Your task to perform on an android device: What's the latest technology news? Image 0: 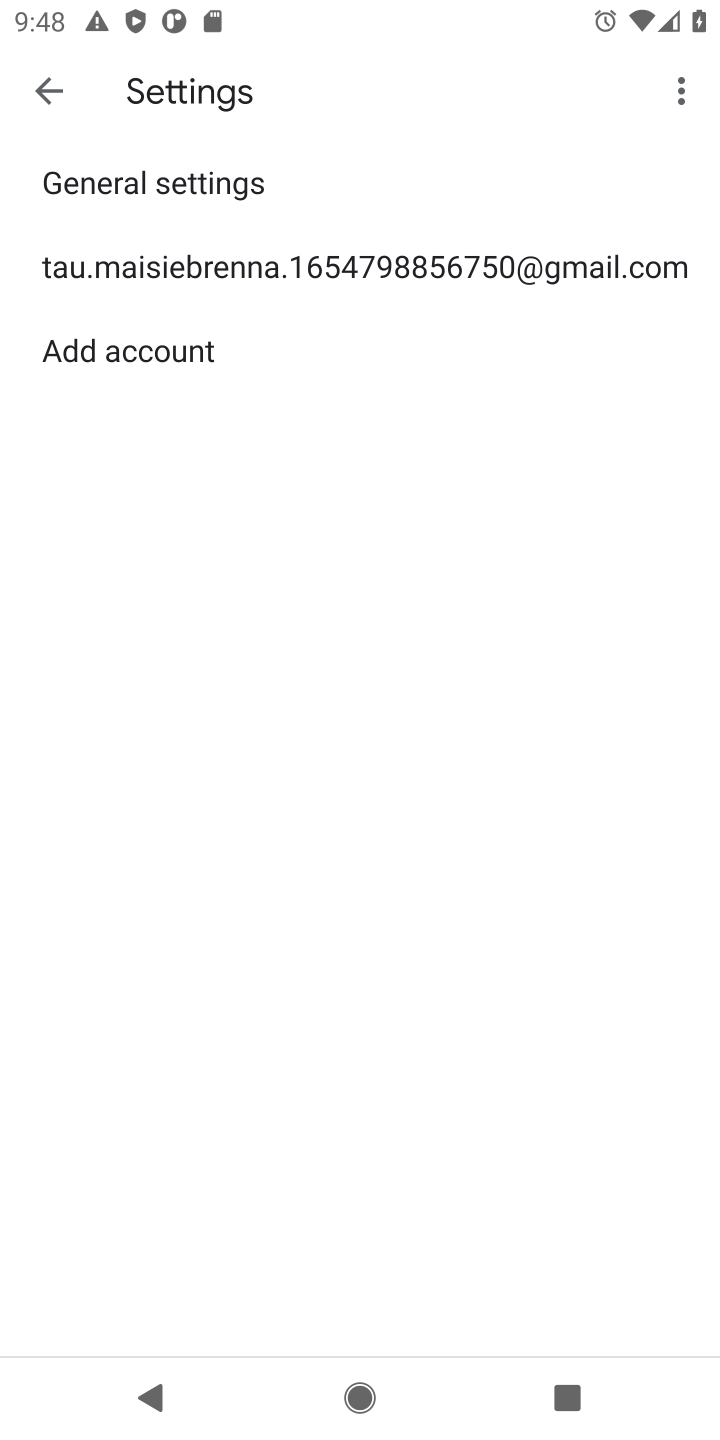
Step 0: press home button
Your task to perform on an android device: What's the latest technology news? Image 1: 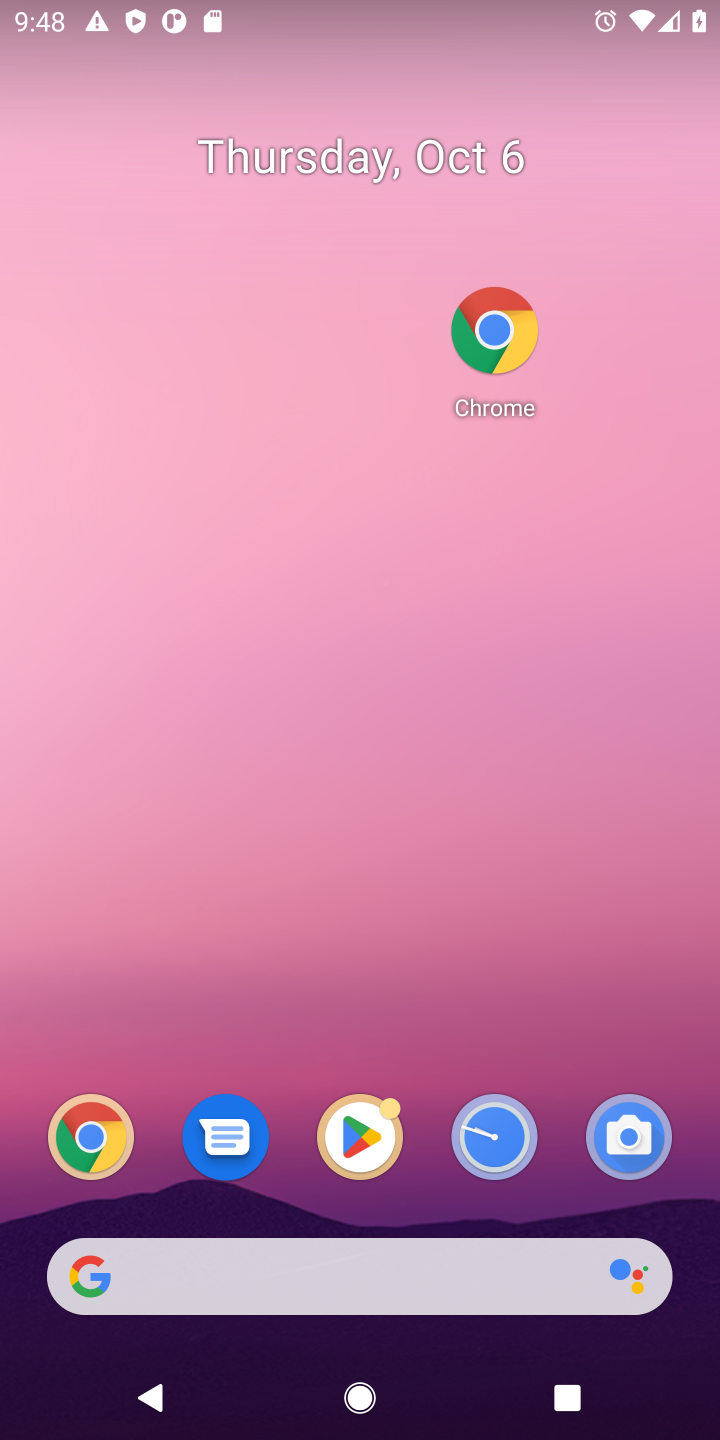
Step 1: click (245, 1262)
Your task to perform on an android device: What's the latest technology news? Image 2: 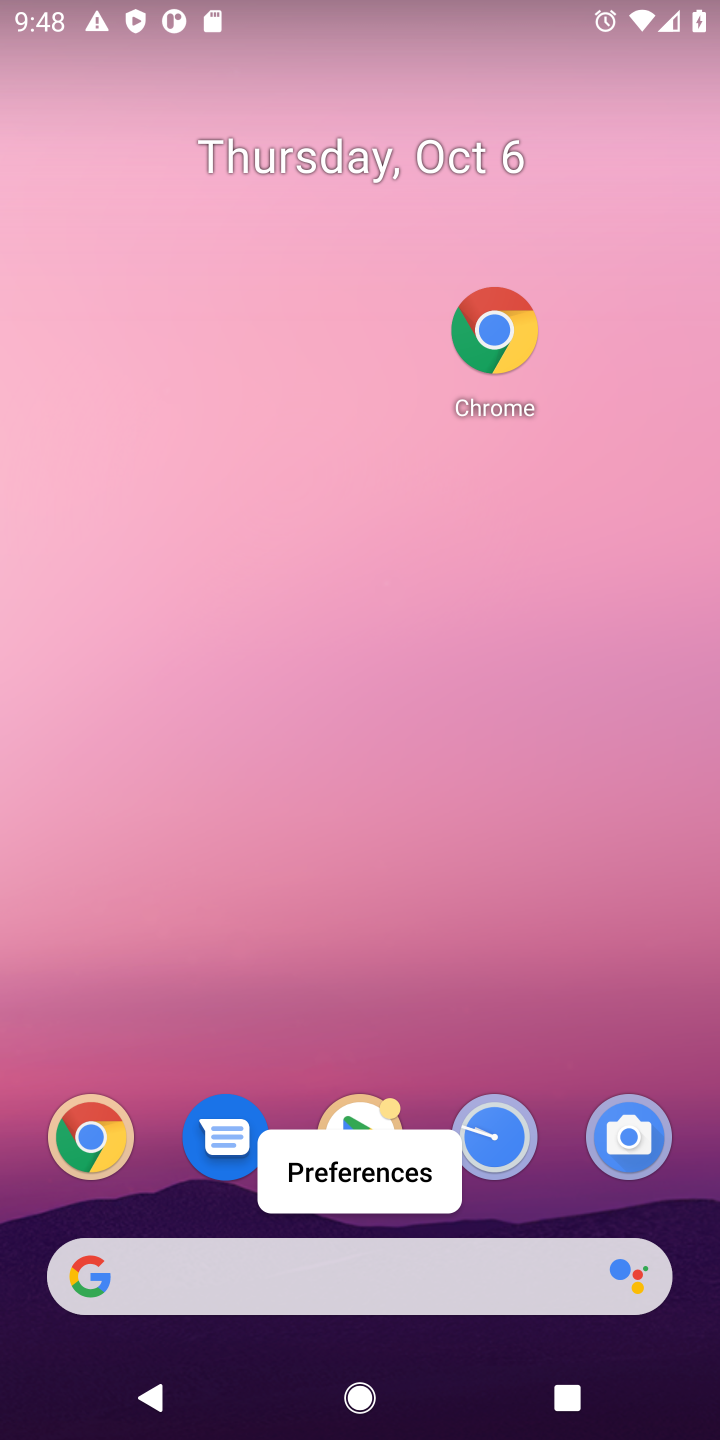
Step 2: click (173, 1276)
Your task to perform on an android device: What's the latest technology news? Image 3: 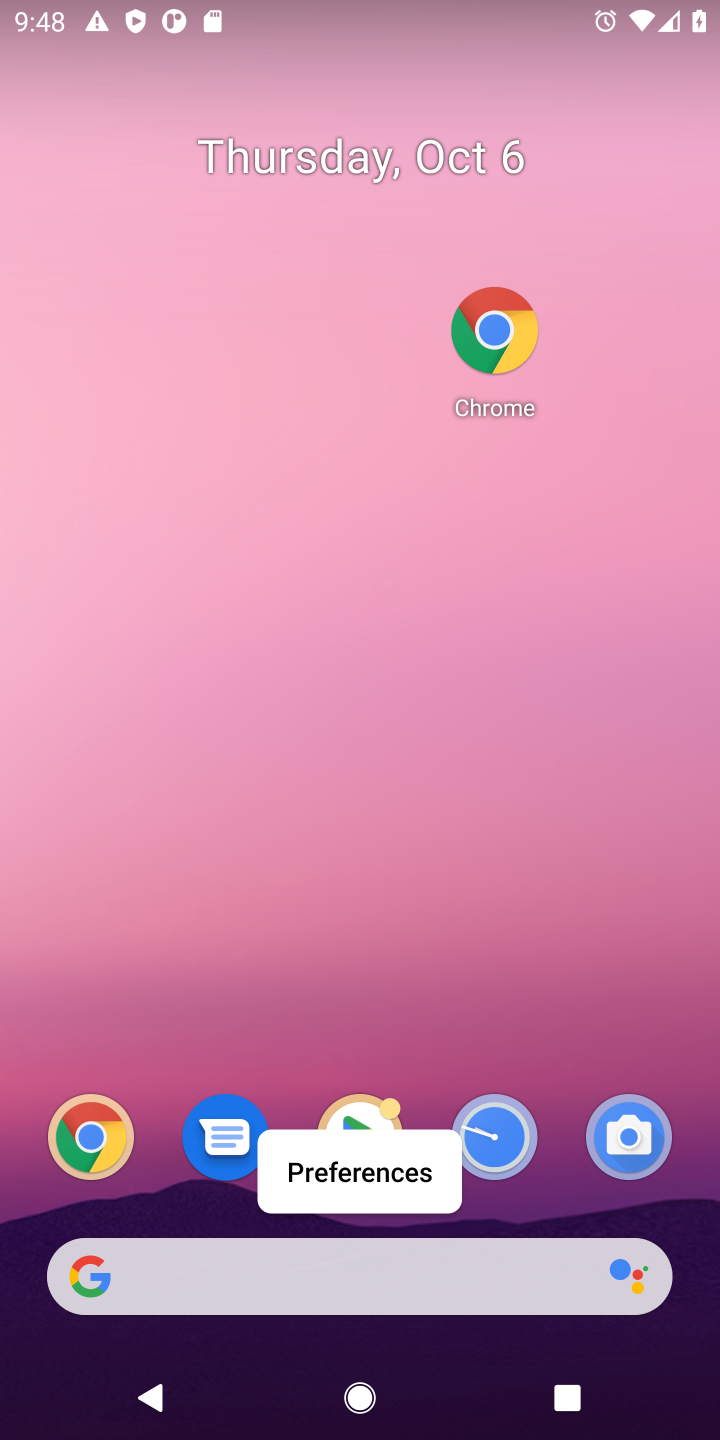
Step 3: click (232, 1271)
Your task to perform on an android device: What's the latest technology news? Image 4: 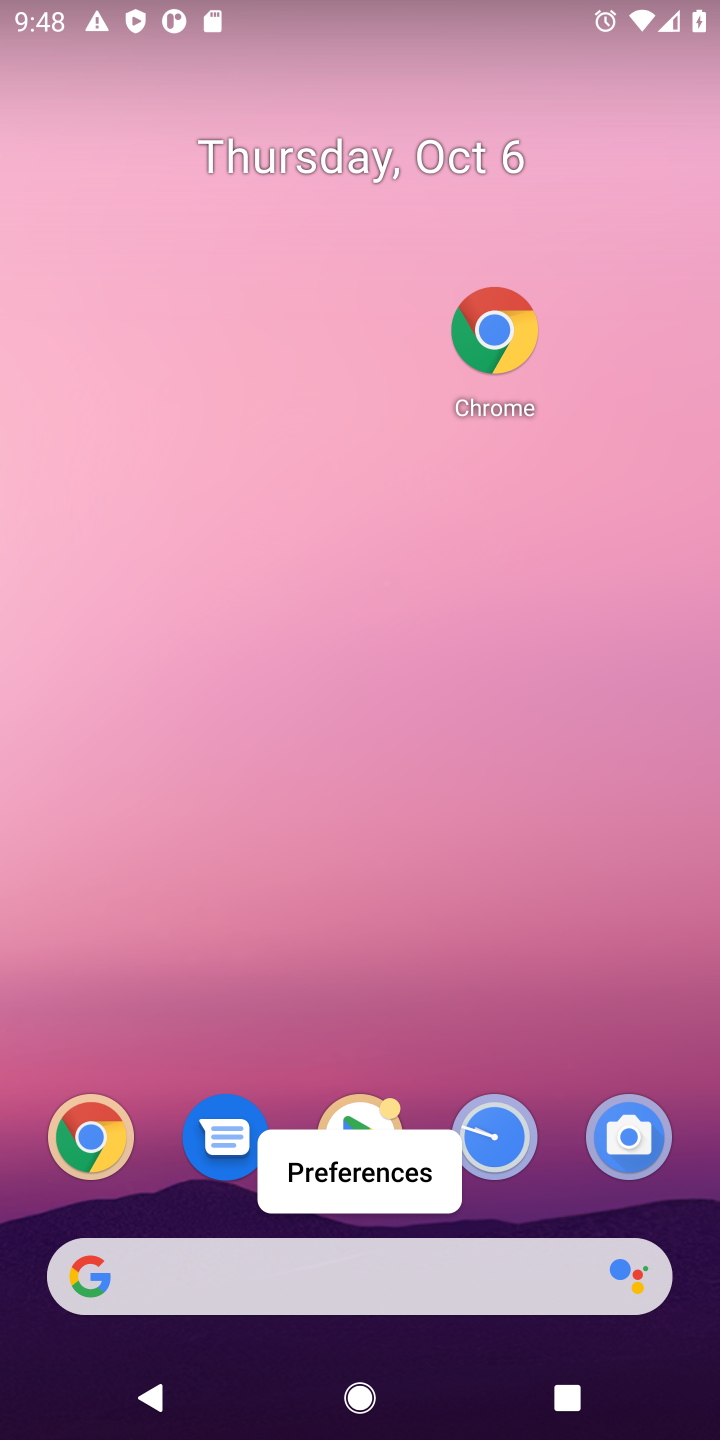
Step 4: click (145, 1283)
Your task to perform on an android device: What's the latest technology news? Image 5: 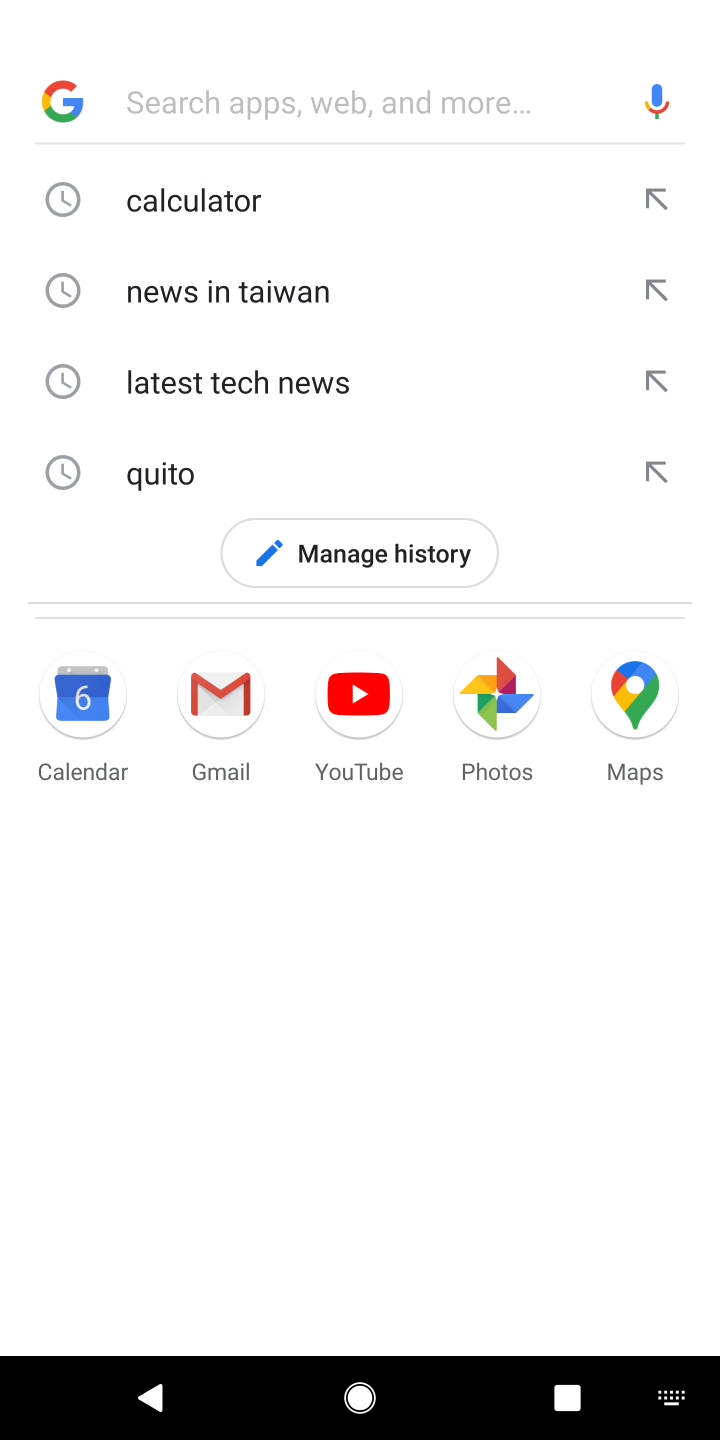
Step 5: type " latest technology news"
Your task to perform on an android device: What's the latest technology news? Image 6: 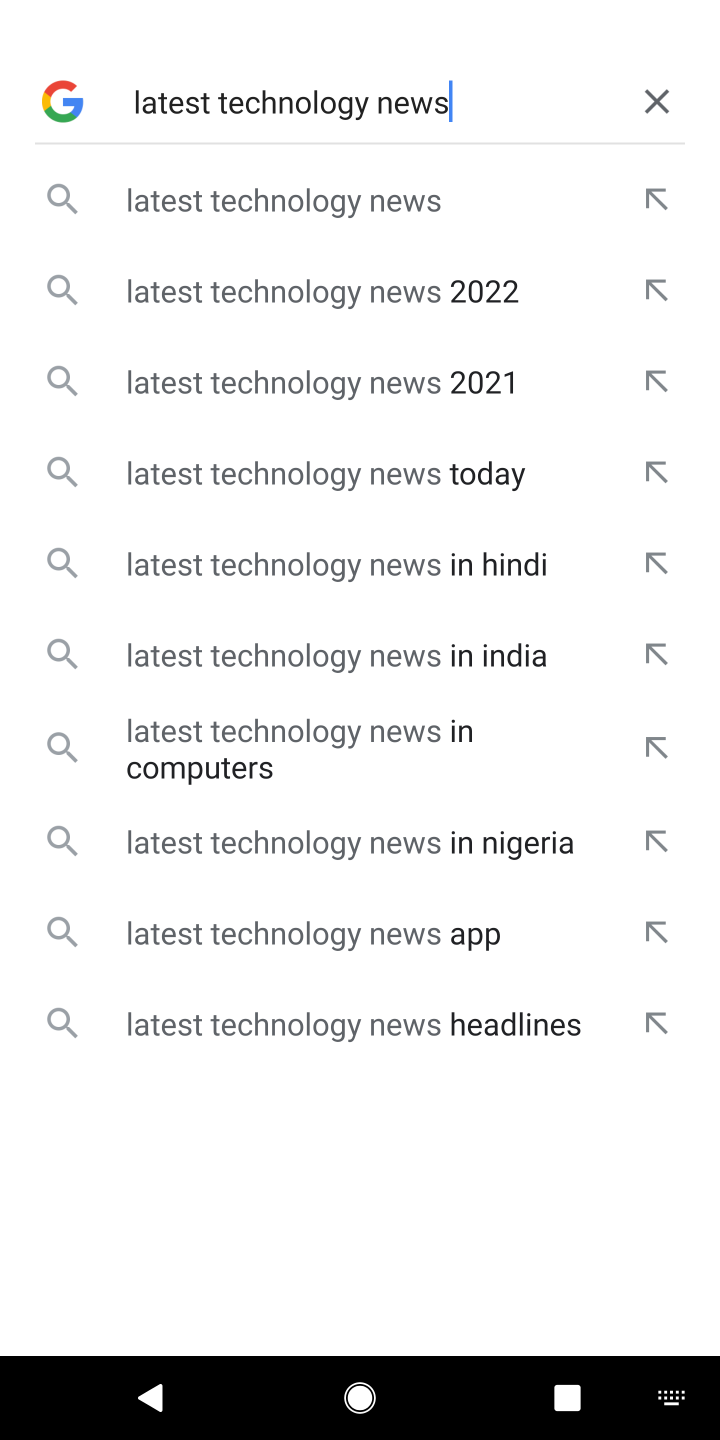
Step 6: click (273, 209)
Your task to perform on an android device: What's the latest technology news? Image 7: 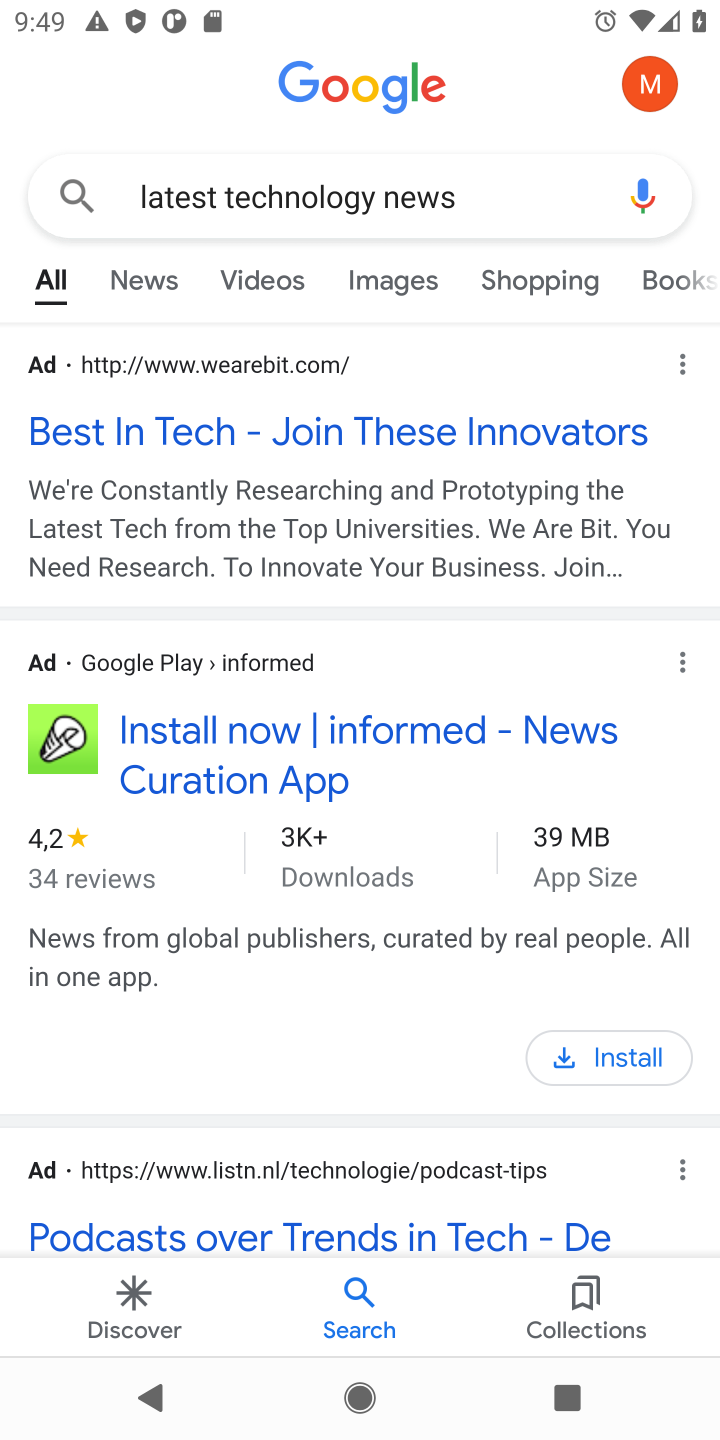
Step 7: click (153, 451)
Your task to perform on an android device: What's the latest technology news? Image 8: 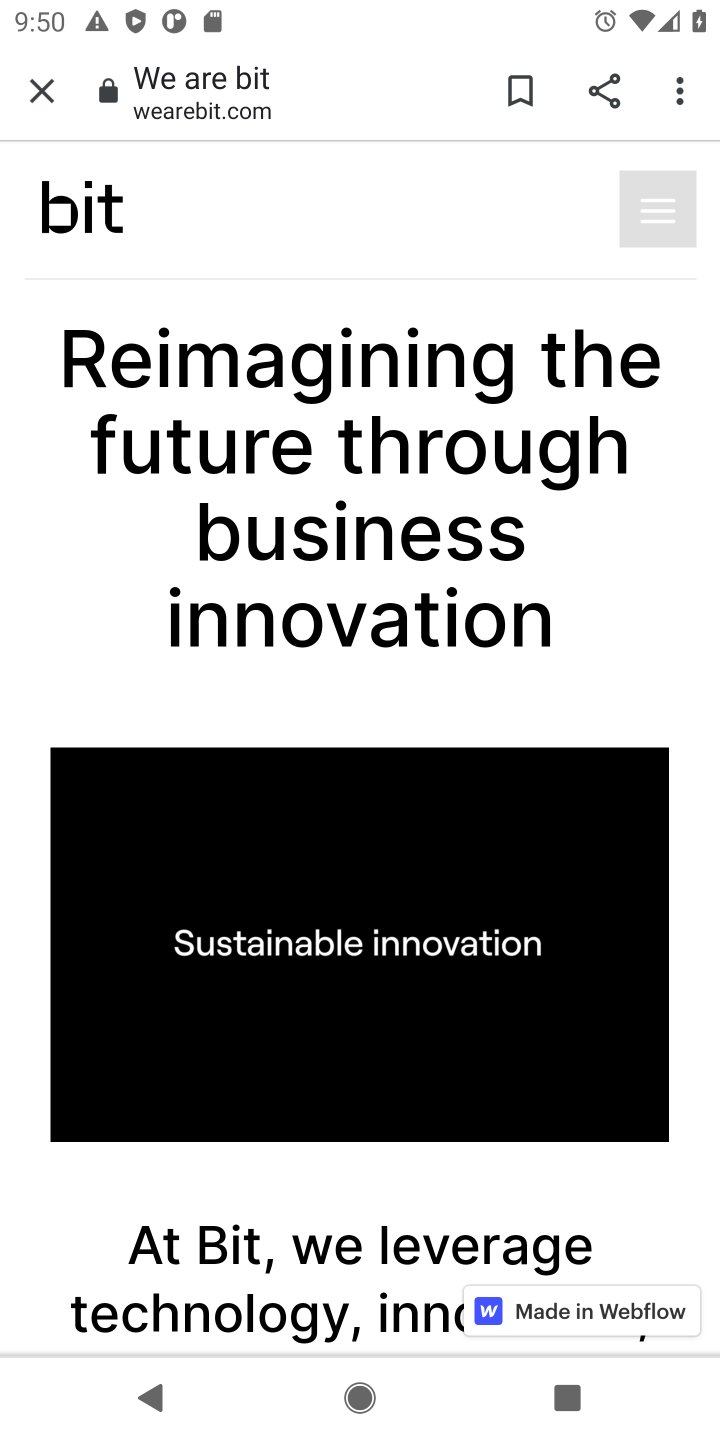
Step 8: task complete